Your task to perform on an android device: turn on location history Image 0: 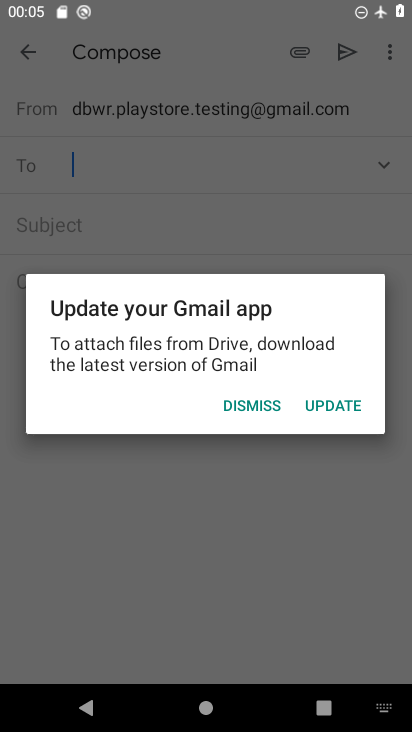
Step 0: press home button
Your task to perform on an android device: turn on location history Image 1: 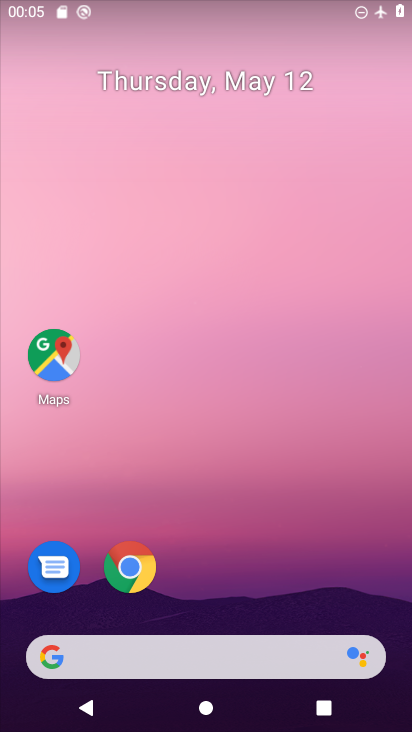
Step 1: drag from (273, 716) to (335, 101)
Your task to perform on an android device: turn on location history Image 2: 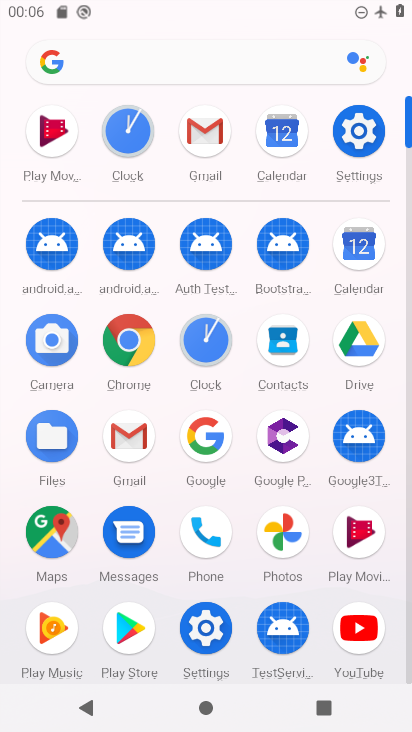
Step 2: click (378, 132)
Your task to perform on an android device: turn on location history Image 3: 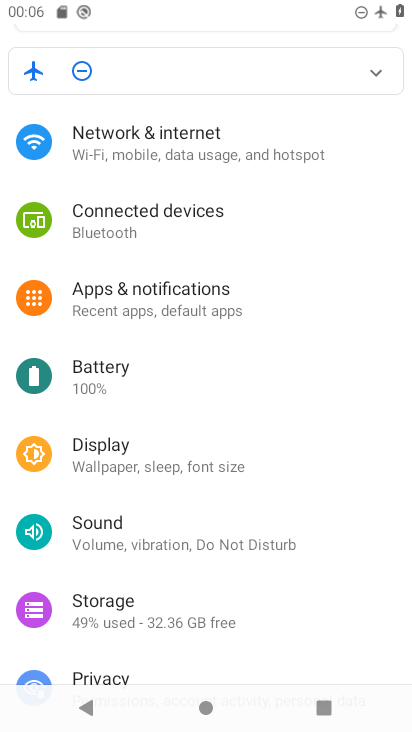
Step 3: drag from (202, 660) to (256, 127)
Your task to perform on an android device: turn on location history Image 4: 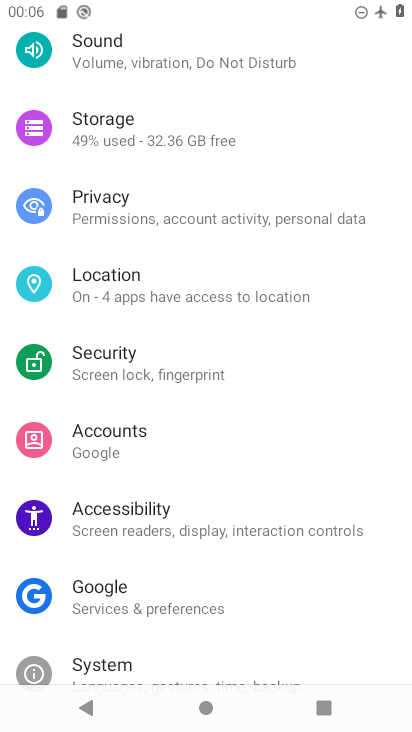
Step 4: click (200, 305)
Your task to perform on an android device: turn on location history Image 5: 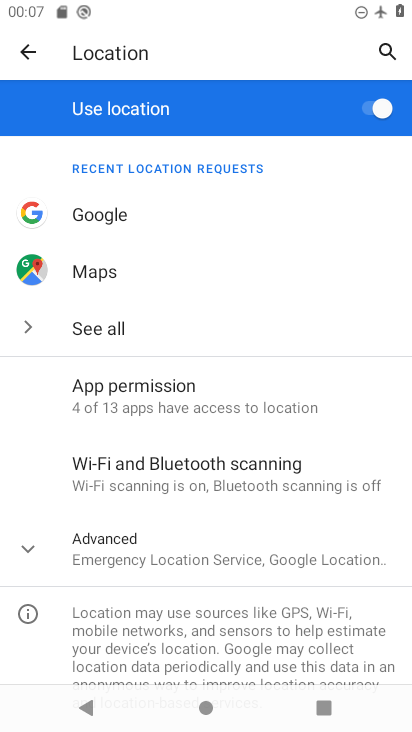
Step 5: click (204, 543)
Your task to perform on an android device: turn on location history Image 6: 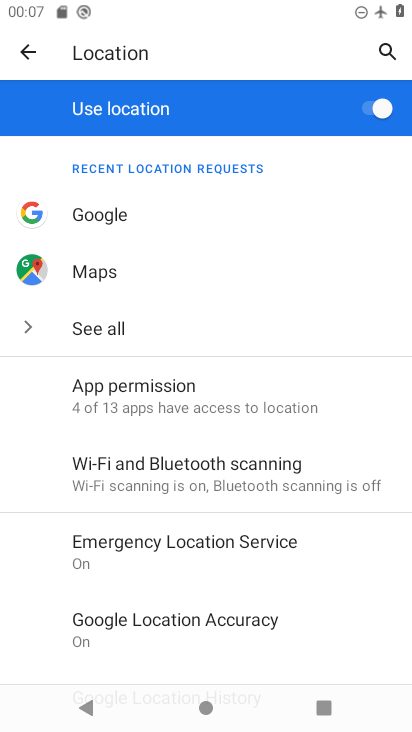
Step 6: drag from (323, 544) to (353, 171)
Your task to perform on an android device: turn on location history Image 7: 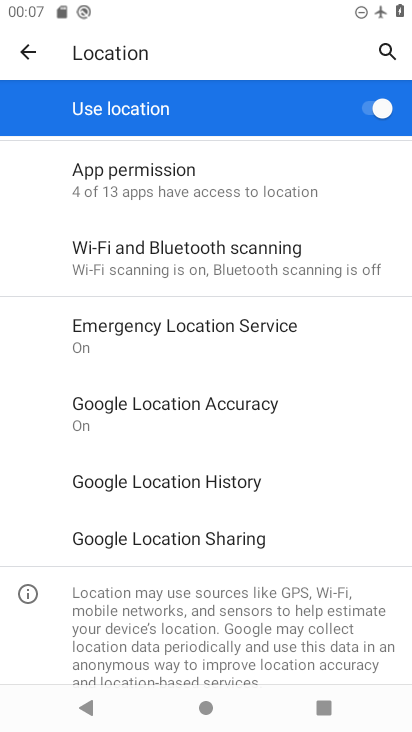
Step 7: click (261, 479)
Your task to perform on an android device: turn on location history Image 8: 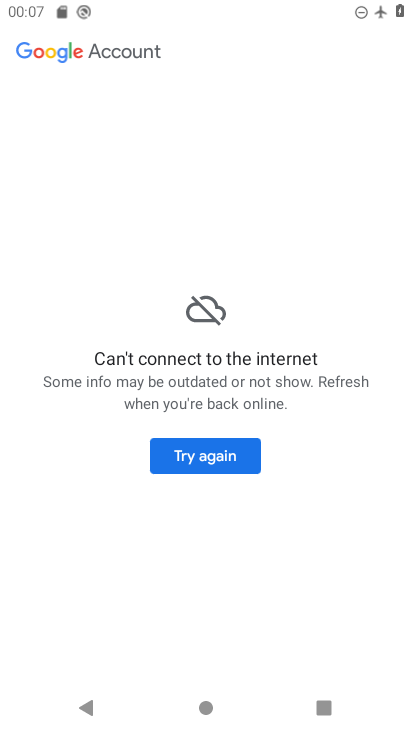
Step 8: task complete